Your task to perform on an android device: stop showing notifications on the lock screen Image 0: 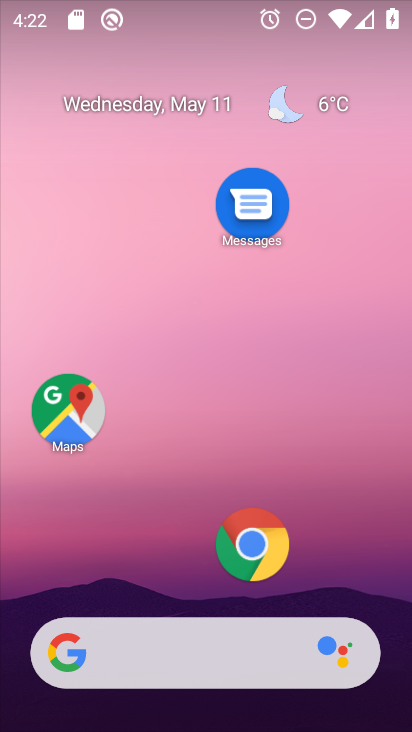
Step 0: drag from (215, 447) to (258, 66)
Your task to perform on an android device: stop showing notifications on the lock screen Image 1: 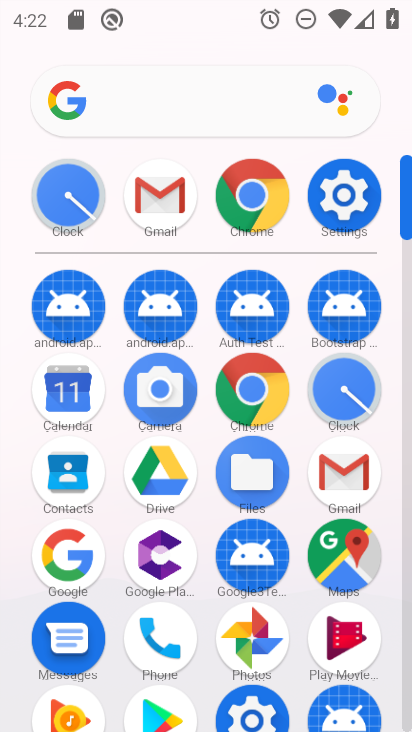
Step 1: click (362, 185)
Your task to perform on an android device: stop showing notifications on the lock screen Image 2: 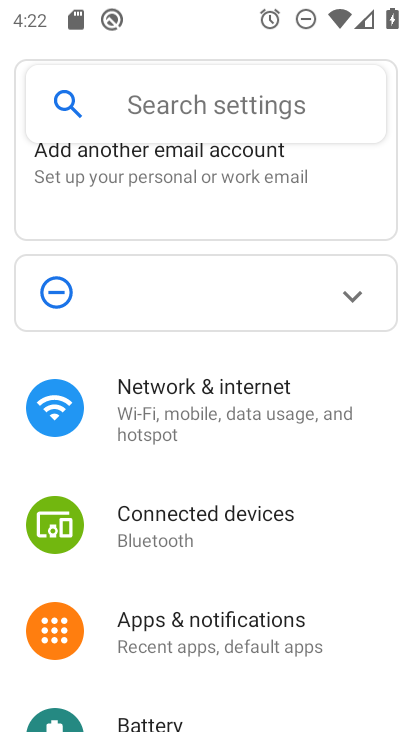
Step 2: click (216, 636)
Your task to perform on an android device: stop showing notifications on the lock screen Image 3: 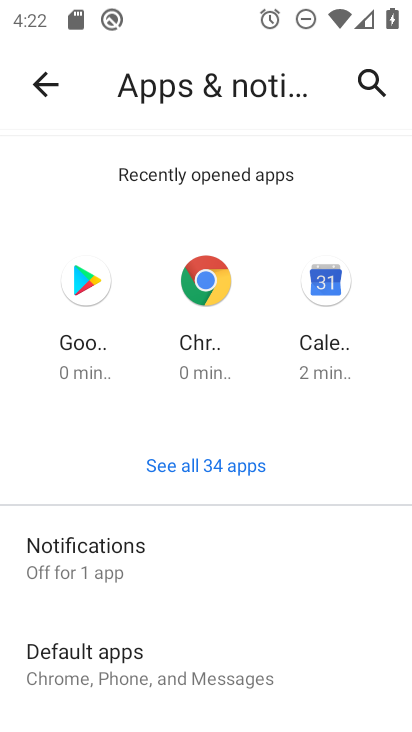
Step 3: click (106, 542)
Your task to perform on an android device: stop showing notifications on the lock screen Image 4: 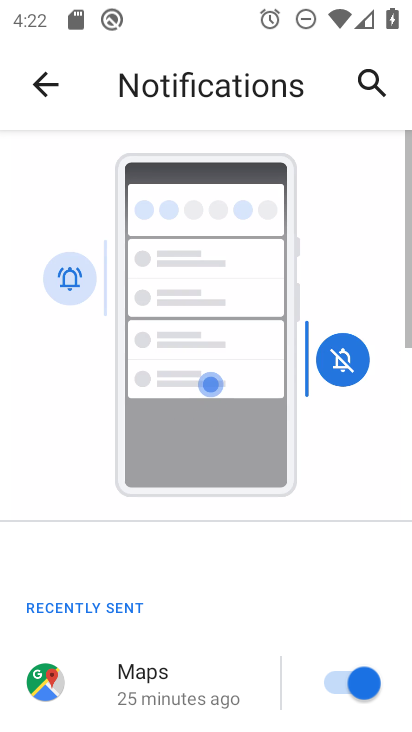
Step 4: drag from (81, 701) to (236, 238)
Your task to perform on an android device: stop showing notifications on the lock screen Image 5: 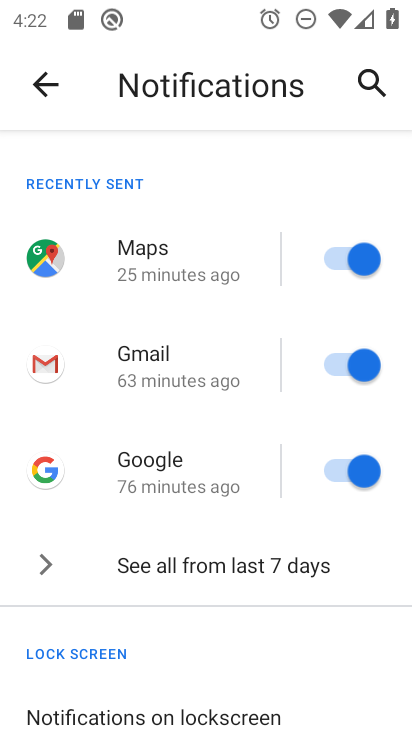
Step 5: click (187, 695)
Your task to perform on an android device: stop showing notifications on the lock screen Image 6: 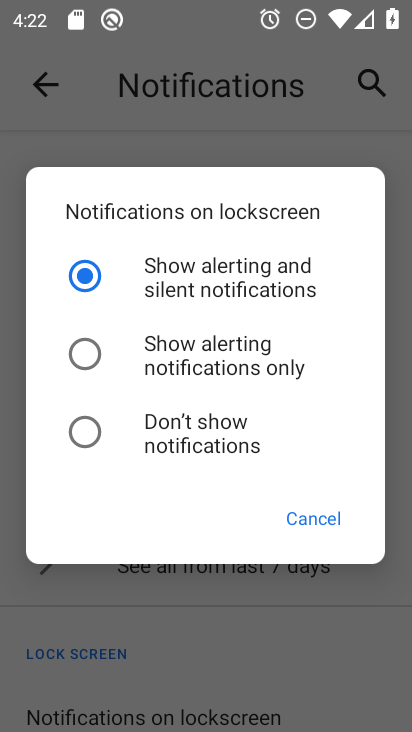
Step 6: click (93, 432)
Your task to perform on an android device: stop showing notifications on the lock screen Image 7: 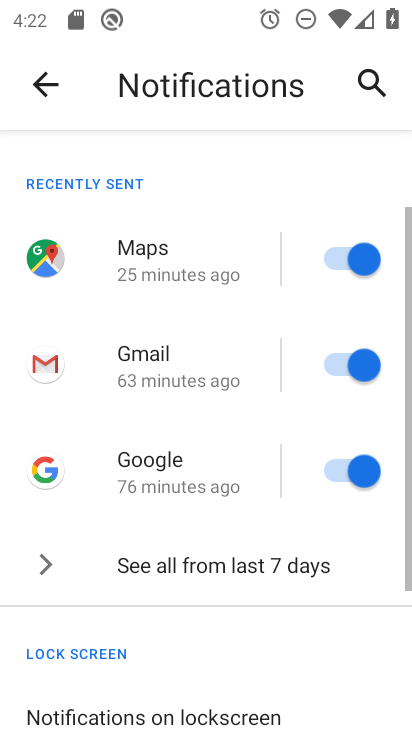
Step 7: task complete